Your task to perform on an android device: What's on my calendar tomorrow? Image 0: 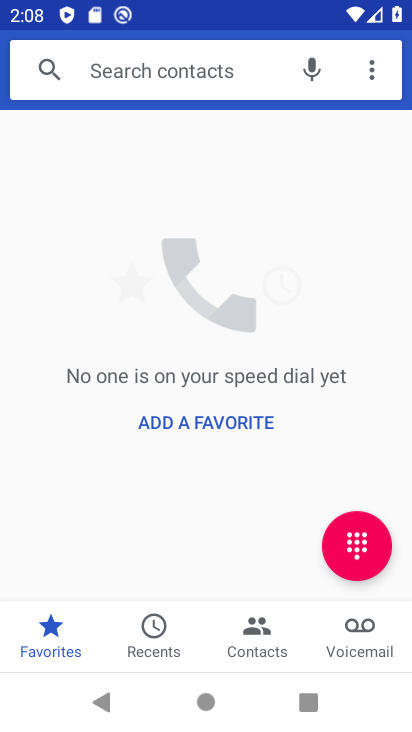
Step 0: press home button
Your task to perform on an android device: What's on my calendar tomorrow? Image 1: 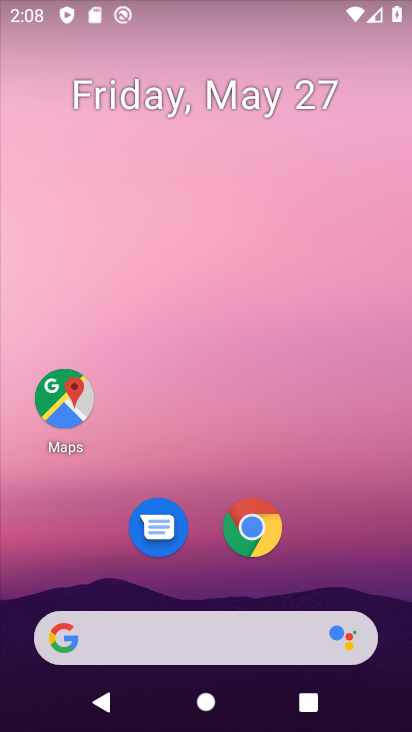
Step 1: drag from (194, 622) to (216, 181)
Your task to perform on an android device: What's on my calendar tomorrow? Image 2: 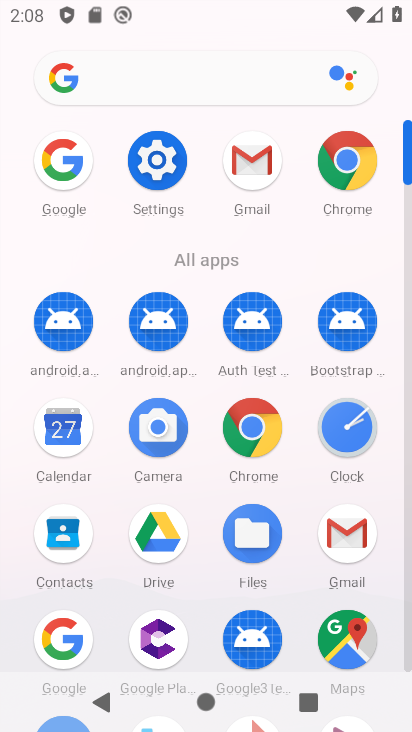
Step 2: click (65, 415)
Your task to perform on an android device: What's on my calendar tomorrow? Image 3: 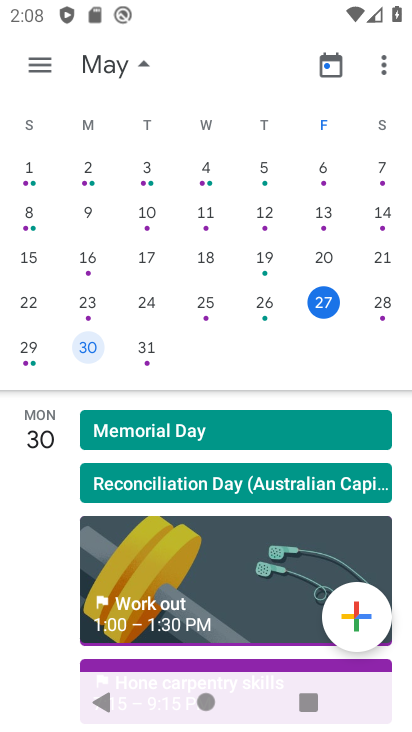
Step 3: click (112, 61)
Your task to perform on an android device: What's on my calendar tomorrow? Image 4: 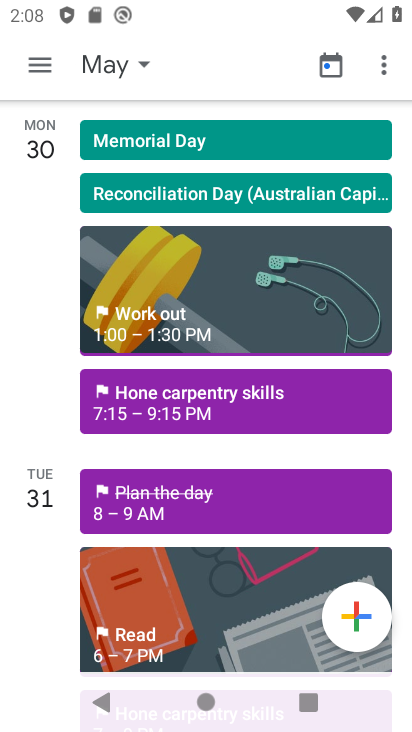
Step 4: click (131, 69)
Your task to perform on an android device: What's on my calendar tomorrow? Image 5: 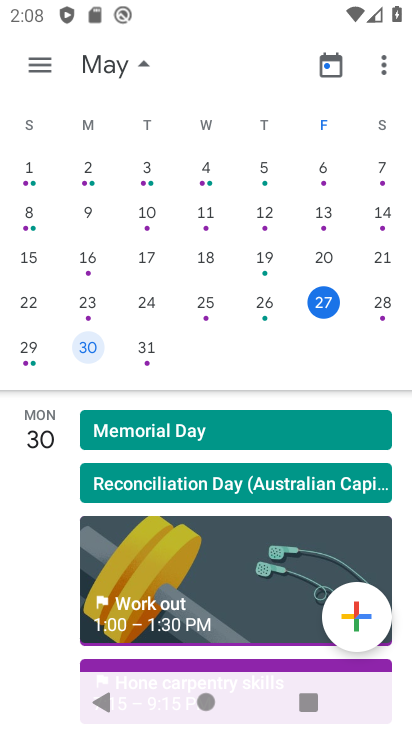
Step 5: click (385, 298)
Your task to perform on an android device: What's on my calendar tomorrow? Image 6: 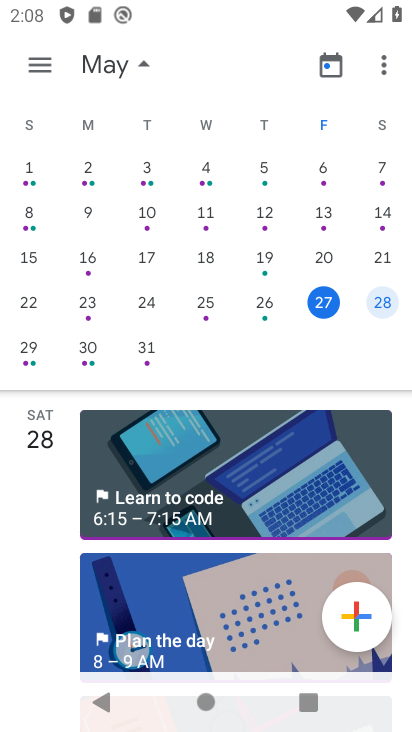
Step 6: task complete